Your task to perform on an android device: Open internet settings Image 0: 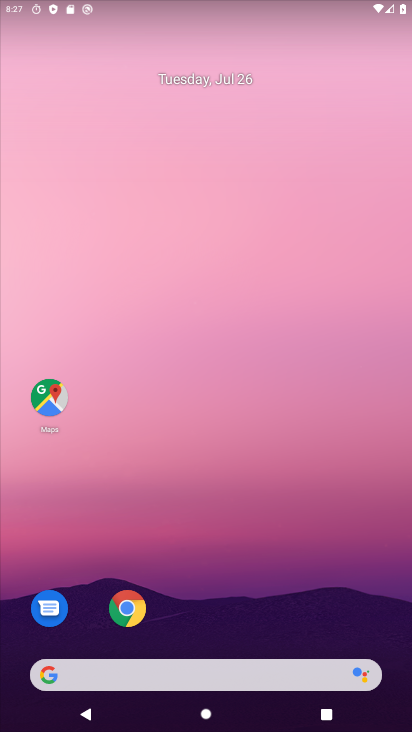
Step 0: drag from (347, 679) to (270, 1)
Your task to perform on an android device: Open internet settings Image 1: 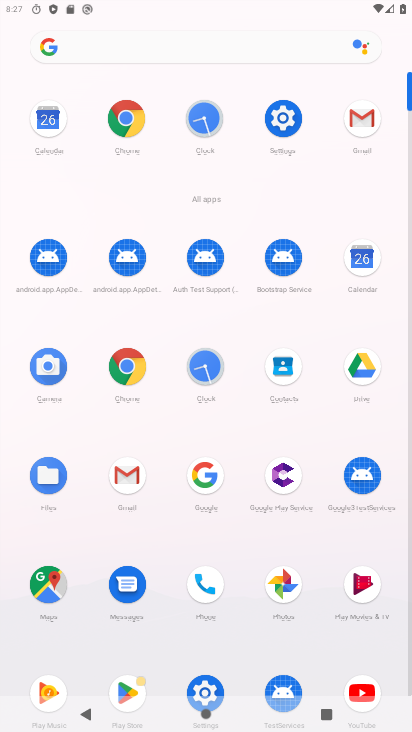
Step 1: click (287, 113)
Your task to perform on an android device: Open internet settings Image 2: 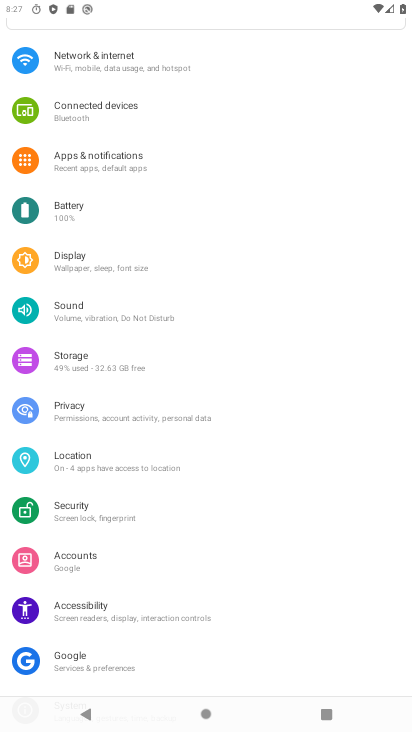
Step 2: click (51, 64)
Your task to perform on an android device: Open internet settings Image 3: 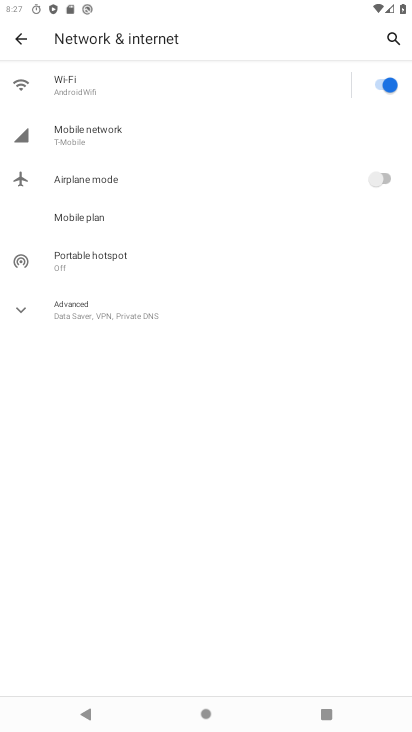
Step 3: click (175, 140)
Your task to perform on an android device: Open internet settings Image 4: 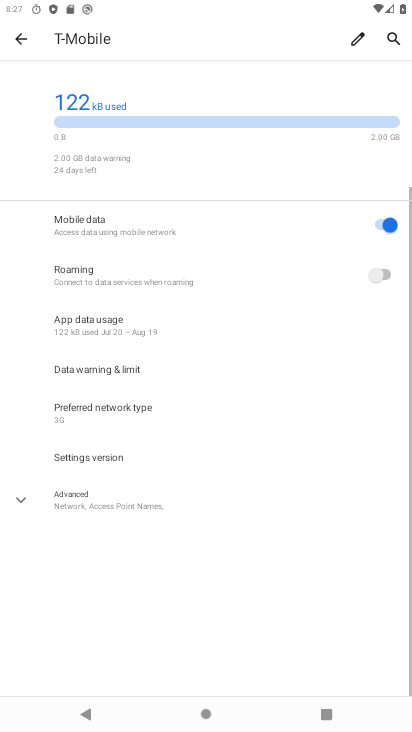
Step 4: task complete